Your task to perform on an android device: View the shopping cart on ebay. Image 0: 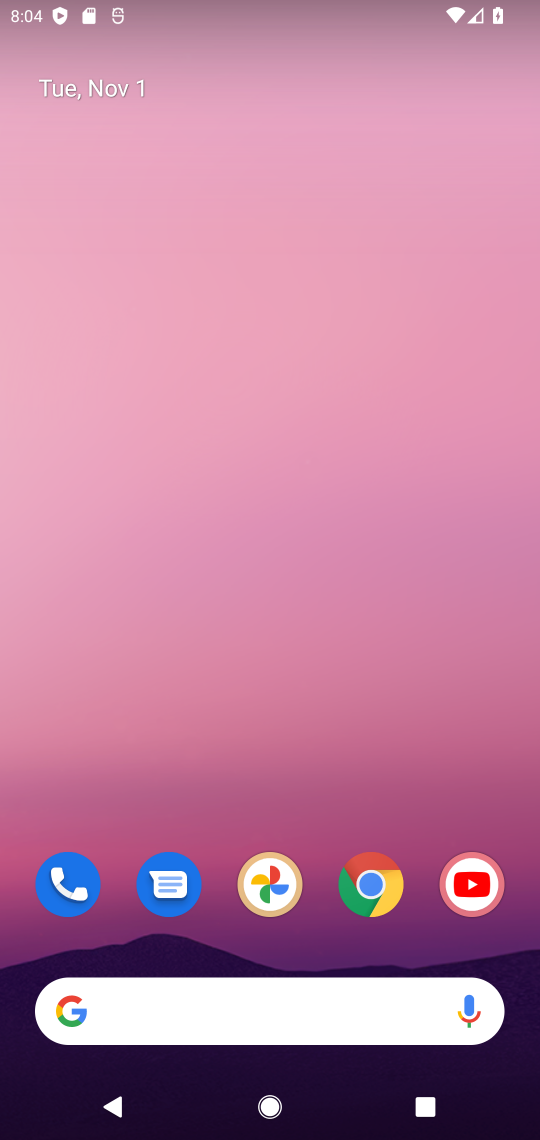
Step 0: click (370, 884)
Your task to perform on an android device: View the shopping cart on ebay. Image 1: 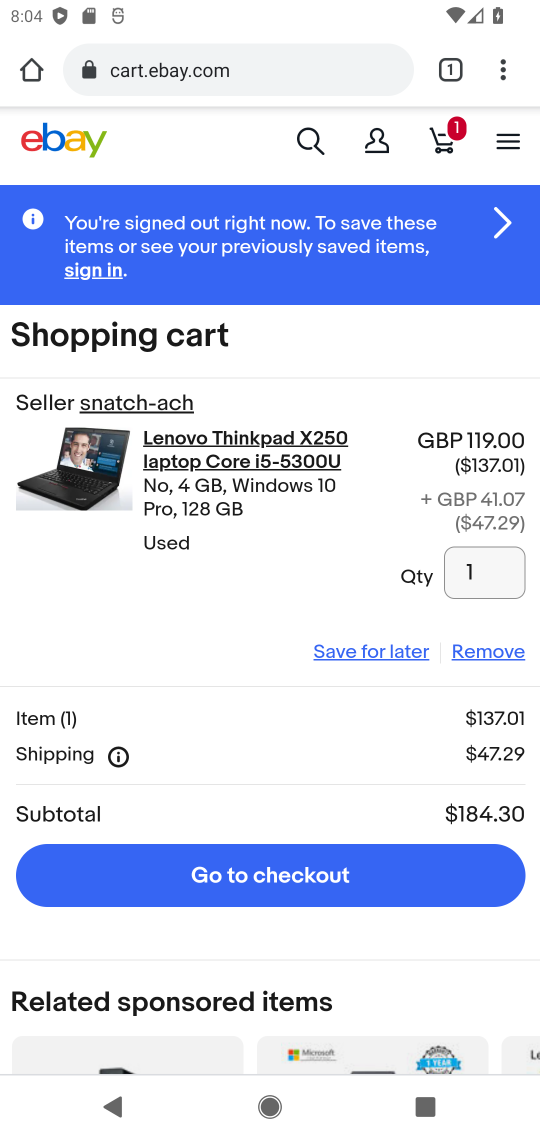
Step 1: click (321, 83)
Your task to perform on an android device: View the shopping cart on ebay. Image 2: 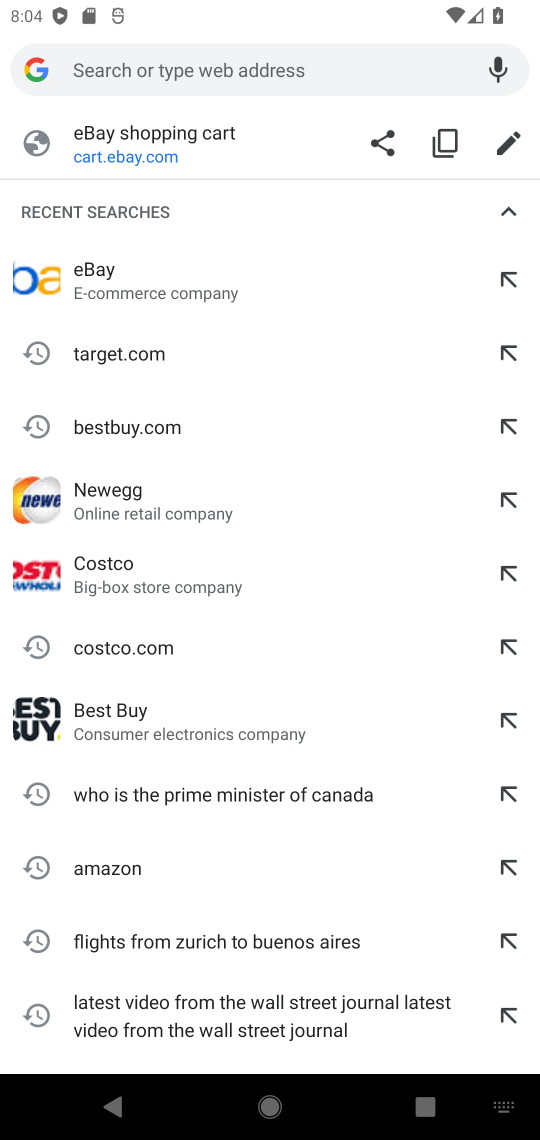
Step 2: type "ebay"
Your task to perform on an android device: View the shopping cart on ebay. Image 3: 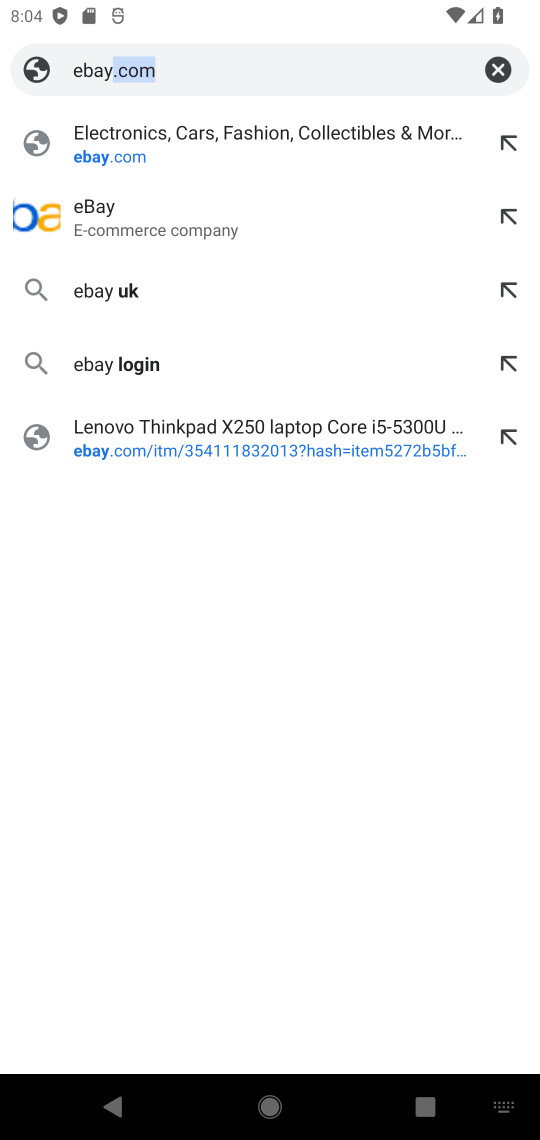
Step 3: click (89, 196)
Your task to perform on an android device: View the shopping cart on ebay. Image 4: 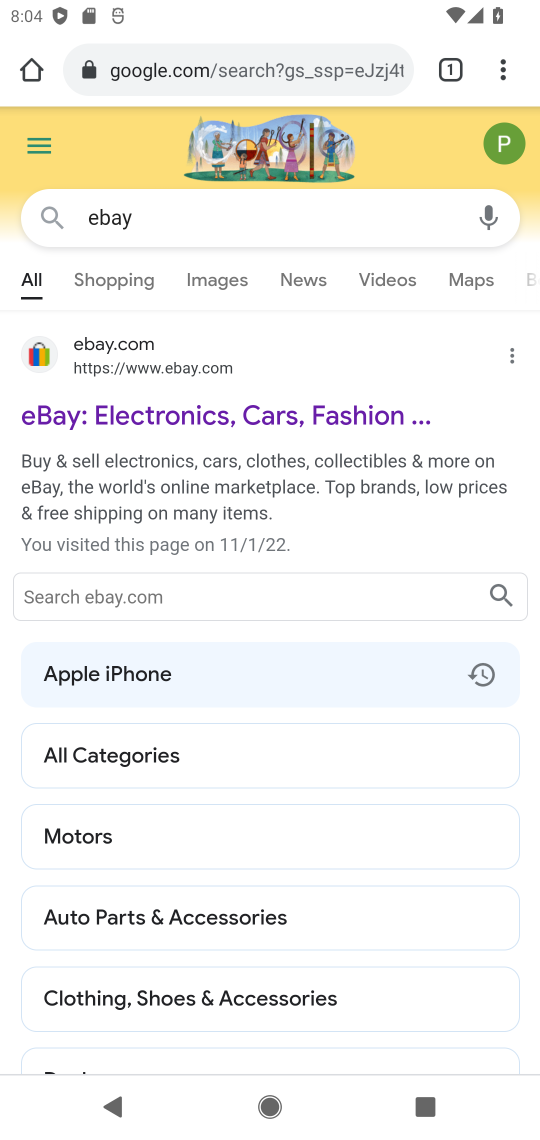
Step 4: click (174, 408)
Your task to perform on an android device: View the shopping cart on ebay. Image 5: 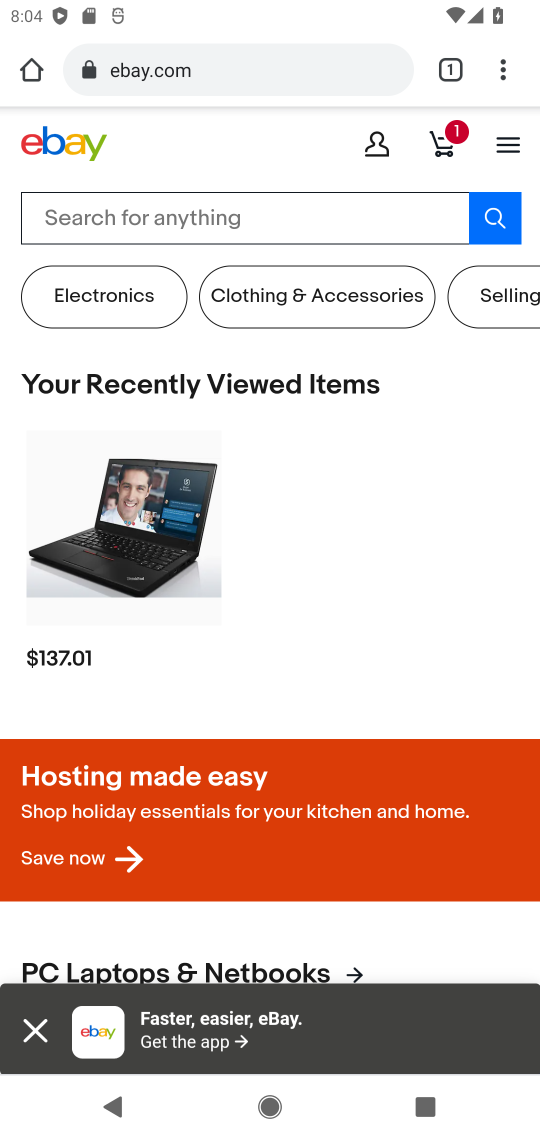
Step 5: click (442, 140)
Your task to perform on an android device: View the shopping cart on ebay. Image 6: 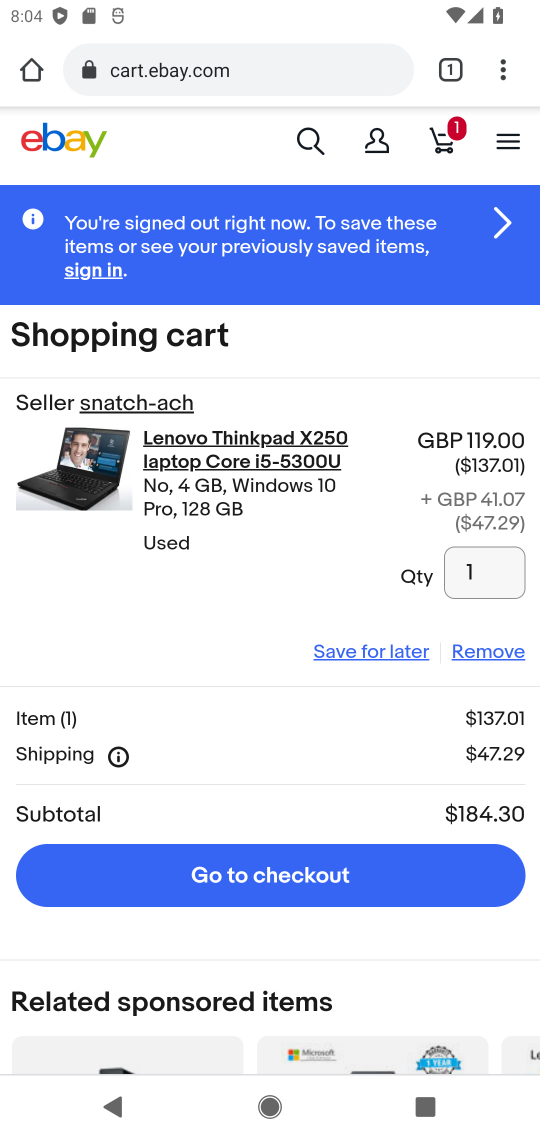
Step 6: task complete